Your task to perform on an android device: change notifications settings Image 0: 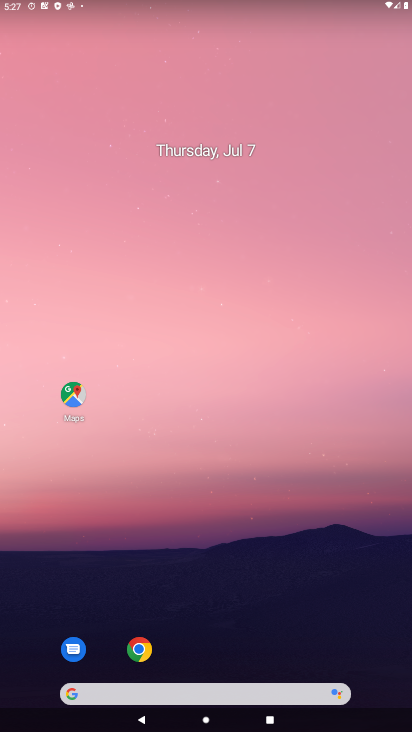
Step 0: drag from (389, 676) to (252, 87)
Your task to perform on an android device: change notifications settings Image 1: 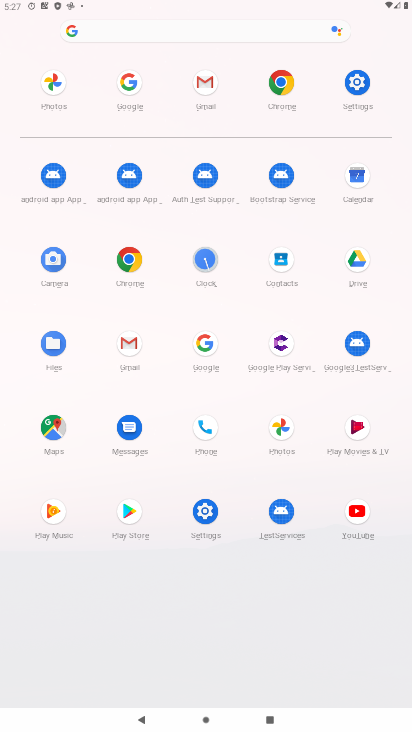
Step 1: click (351, 77)
Your task to perform on an android device: change notifications settings Image 2: 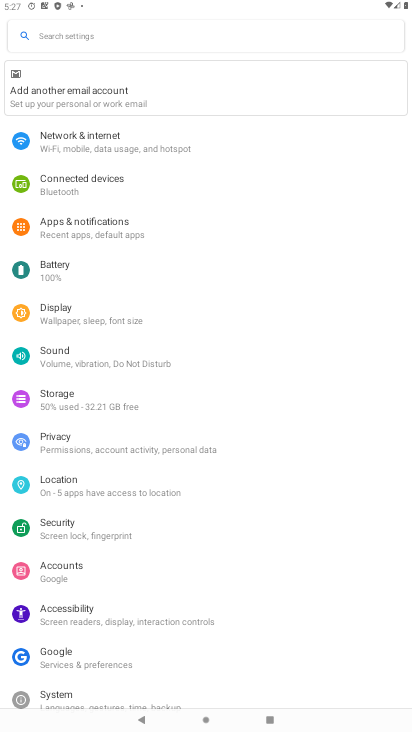
Step 2: click (159, 233)
Your task to perform on an android device: change notifications settings Image 3: 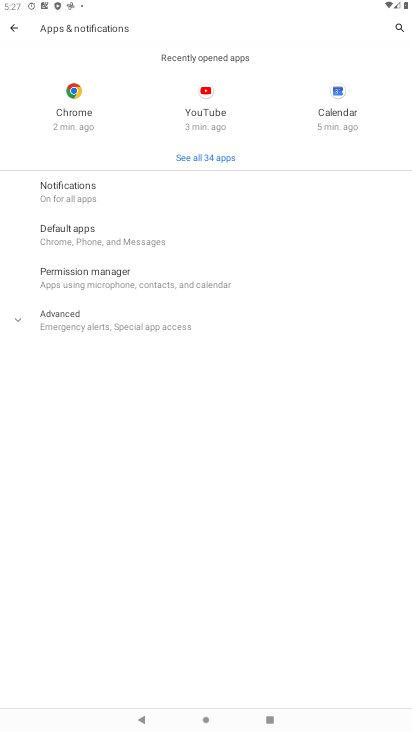
Step 3: task complete